Your task to perform on an android device: Go to Reddit.com Image 0: 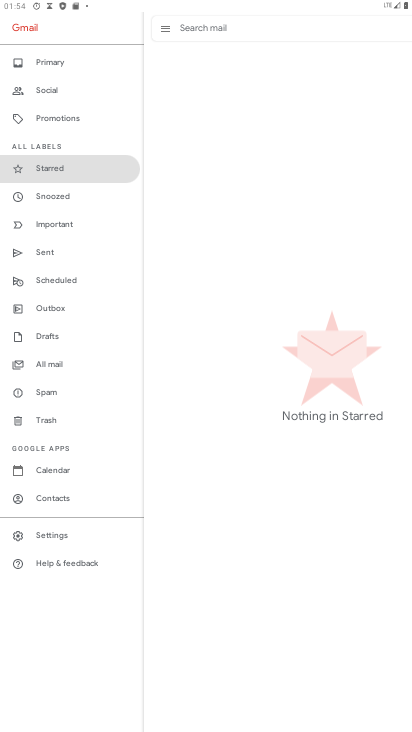
Step 0: press home button
Your task to perform on an android device: Go to Reddit.com Image 1: 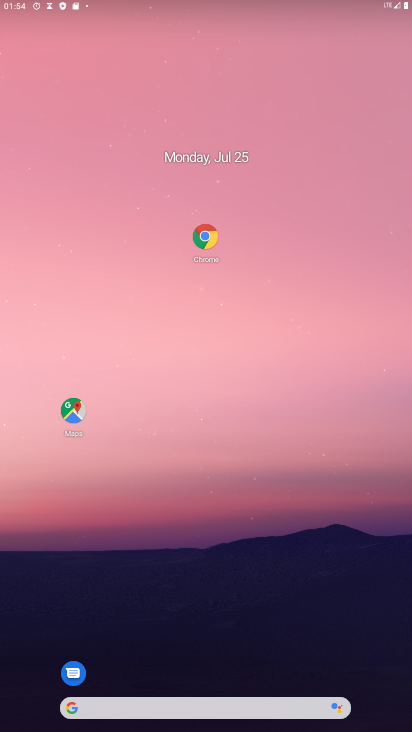
Step 1: drag from (223, 710) to (203, 22)
Your task to perform on an android device: Go to Reddit.com Image 2: 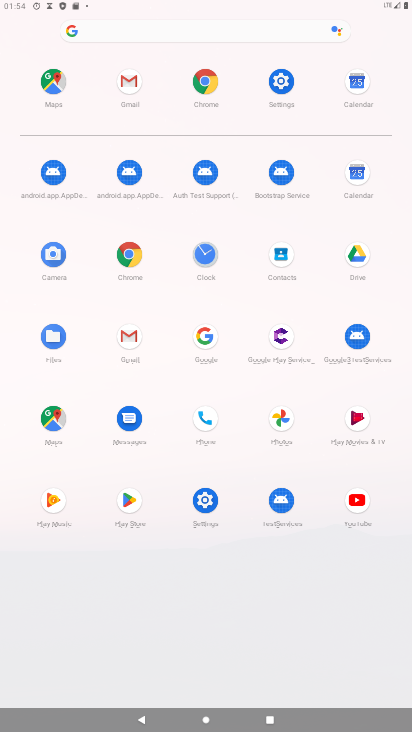
Step 2: click (133, 253)
Your task to perform on an android device: Go to Reddit.com Image 3: 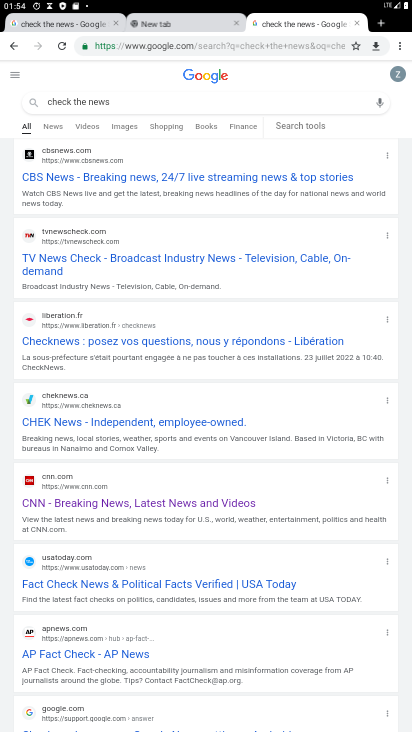
Step 3: click (168, 43)
Your task to perform on an android device: Go to Reddit.com Image 4: 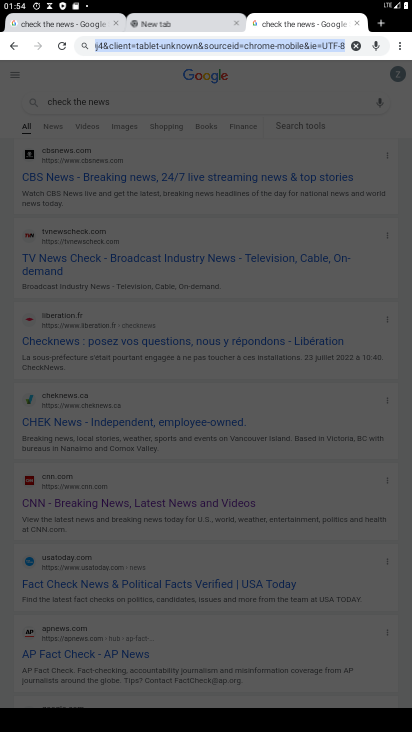
Step 4: type "reddit.com"
Your task to perform on an android device: Go to Reddit.com Image 5: 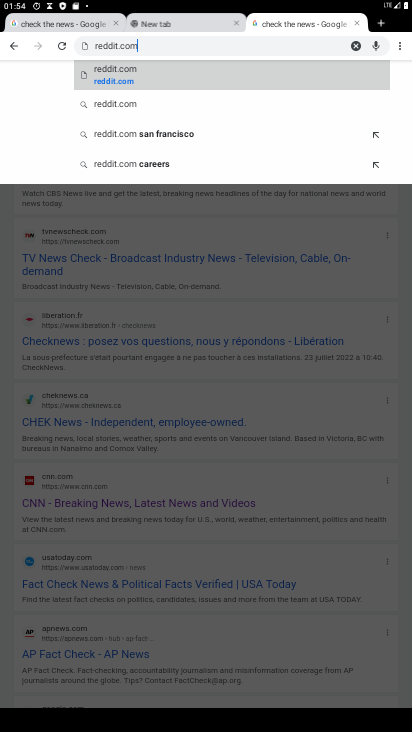
Step 5: click (215, 78)
Your task to perform on an android device: Go to Reddit.com Image 6: 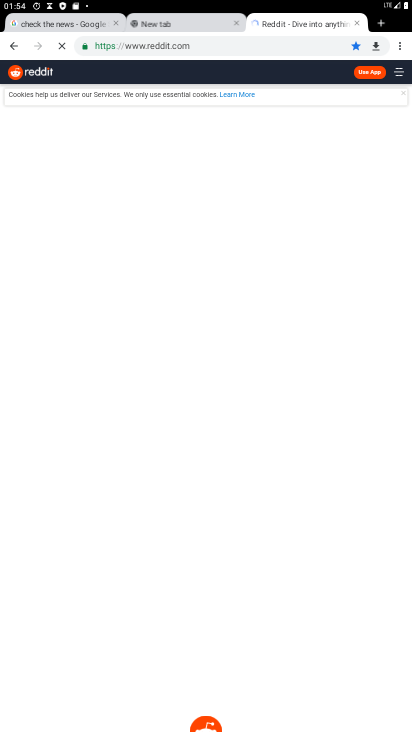
Step 6: task complete